Your task to perform on an android device: all mails in gmail Image 0: 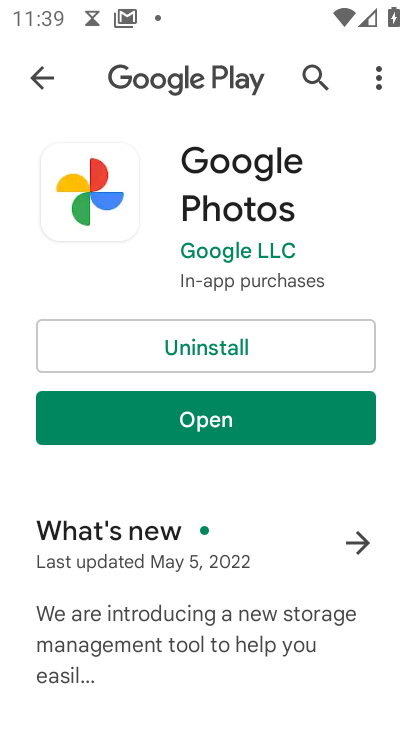
Step 0: press home button
Your task to perform on an android device: all mails in gmail Image 1: 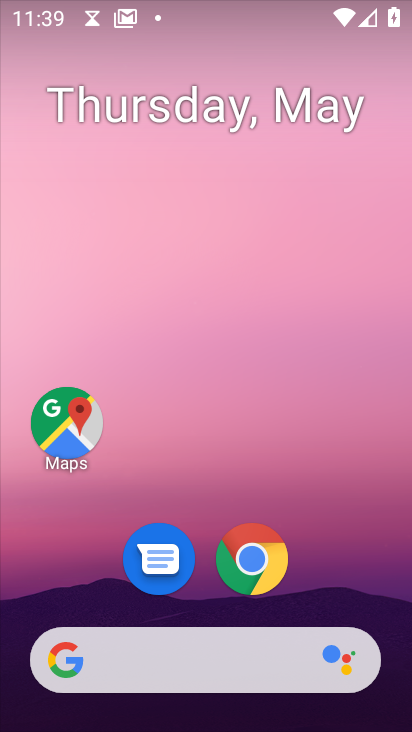
Step 1: drag from (216, 729) to (178, 166)
Your task to perform on an android device: all mails in gmail Image 2: 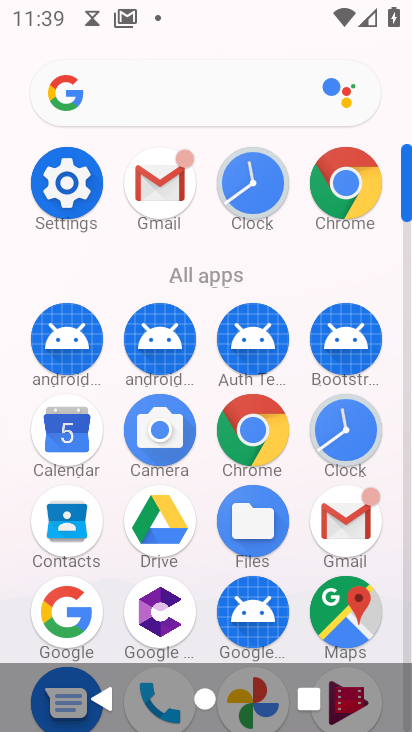
Step 2: click (352, 530)
Your task to perform on an android device: all mails in gmail Image 3: 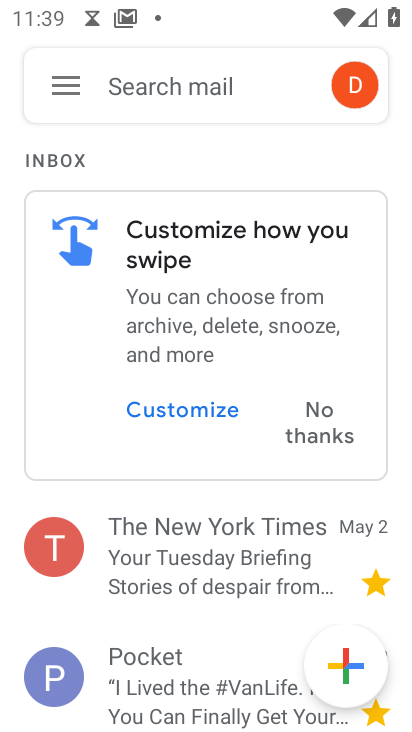
Step 3: click (58, 84)
Your task to perform on an android device: all mails in gmail Image 4: 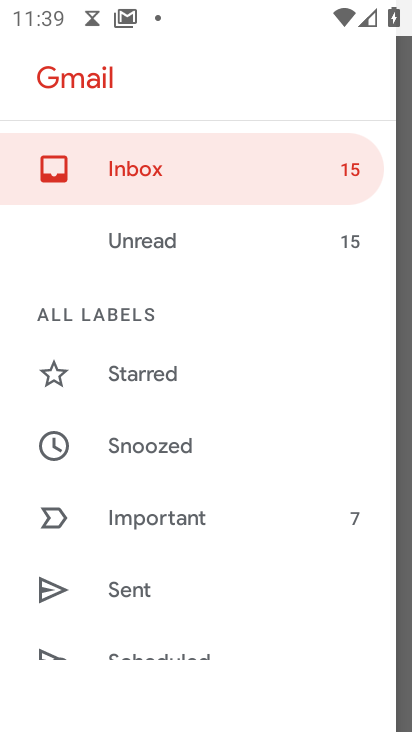
Step 4: drag from (156, 637) to (165, 238)
Your task to perform on an android device: all mails in gmail Image 5: 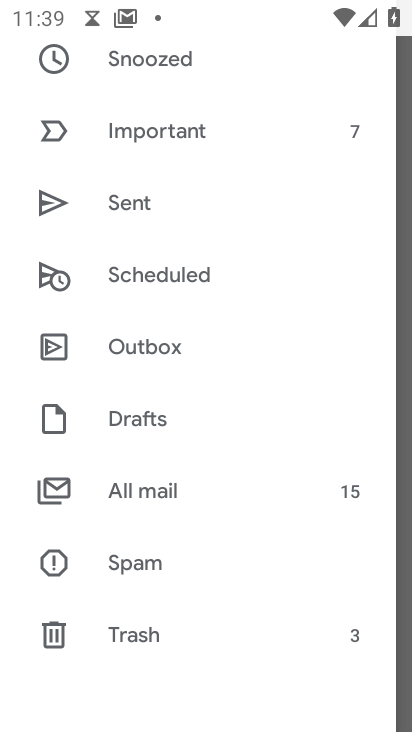
Step 5: click (126, 488)
Your task to perform on an android device: all mails in gmail Image 6: 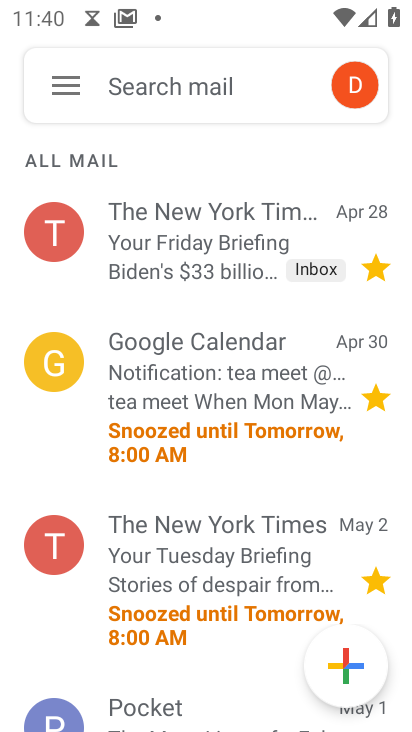
Step 6: task complete